Your task to perform on an android device: change the clock display to digital Image 0: 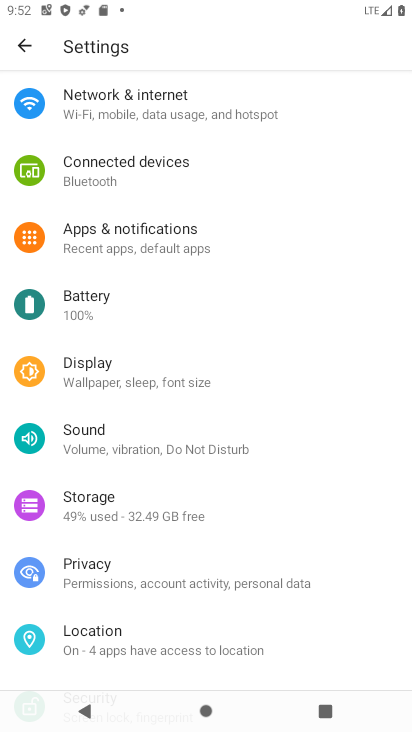
Step 0: press home button
Your task to perform on an android device: change the clock display to digital Image 1: 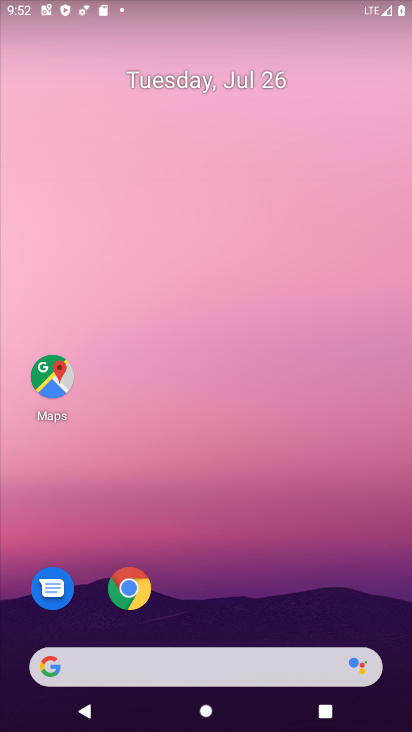
Step 1: drag from (162, 655) to (226, 83)
Your task to perform on an android device: change the clock display to digital Image 2: 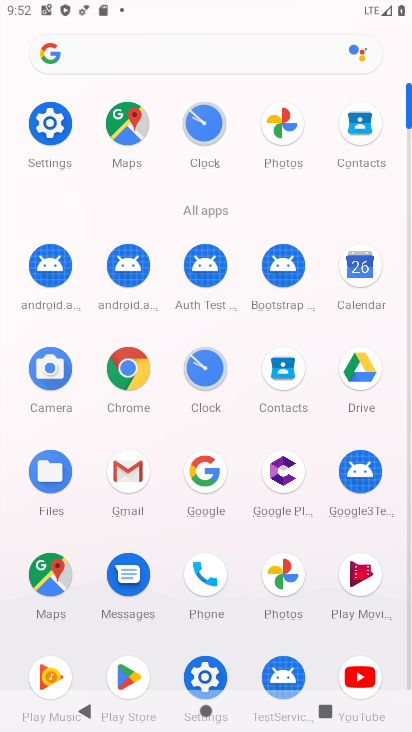
Step 2: click (207, 123)
Your task to perform on an android device: change the clock display to digital Image 3: 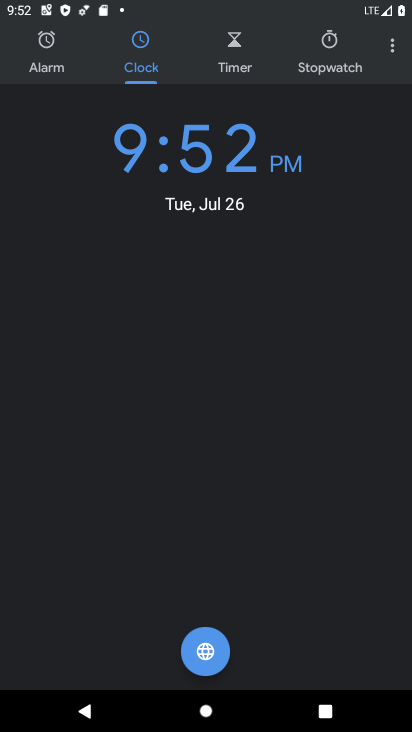
Step 3: click (397, 47)
Your task to perform on an android device: change the clock display to digital Image 4: 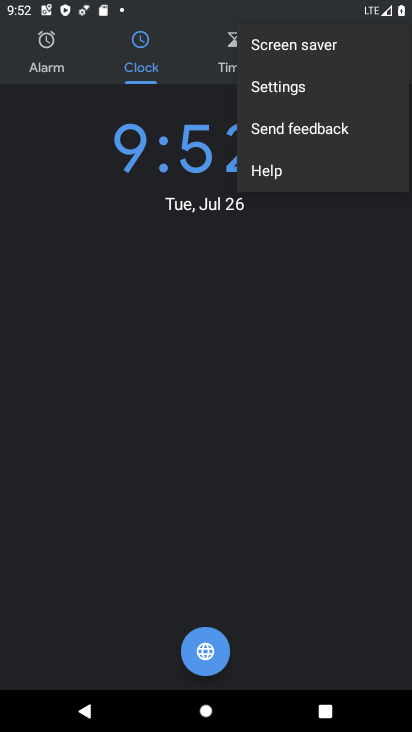
Step 4: click (293, 89)
Your task to perform on an android device: change the clock display to digital Image 5: 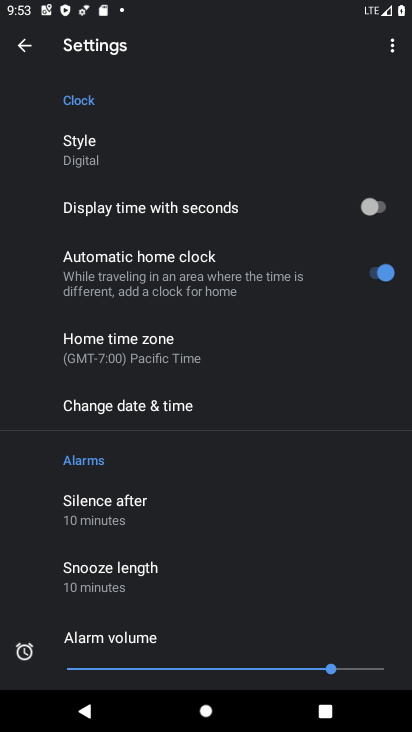
Step 5: click (87, 152)
Your task to perform on an android device: change the clock display to digital Image 6: 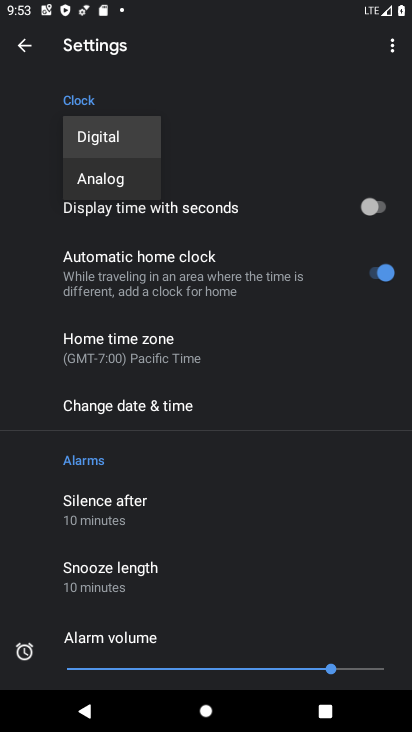
Step 6: click (107, 141)
Your task to perform on an android device: change the clock display to digital Image 7: 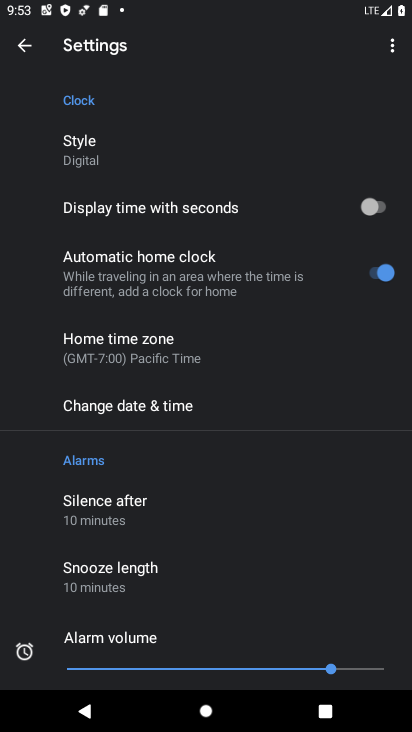
Step 7: task complete